Your task to perform on an android device: Open Google Maps Image 0: 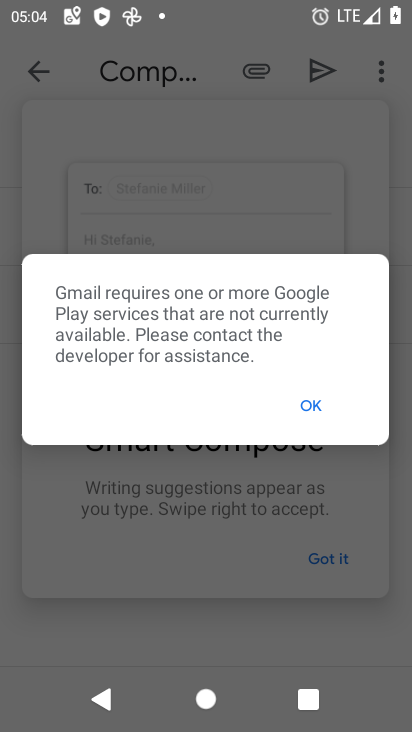
Step 0: press home button
Your task to perform on an android device: Open Google Maps Image 1: 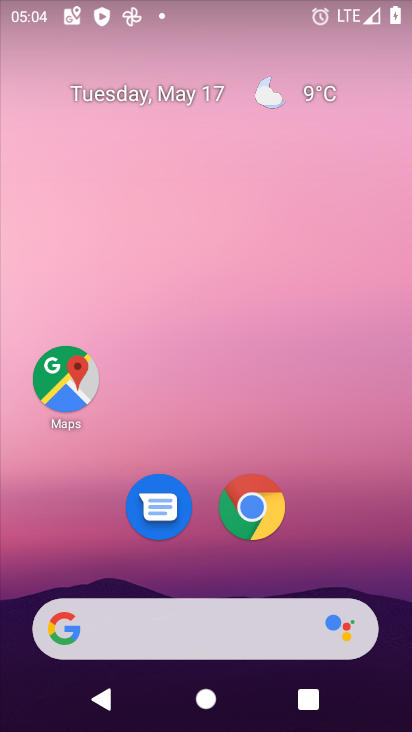
Step 1: click (78, 369)
Your task to perform on an android device: Open Google Maps Image 2: 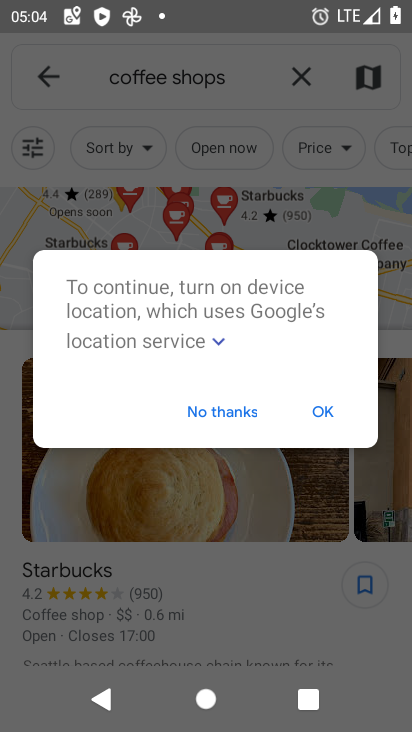
Step 2: task complete